Your task to perform on an android device: Open settings Image 0: 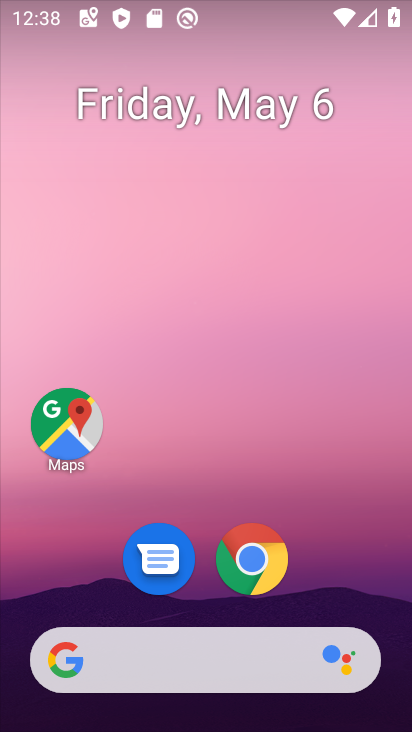
Step 0: drag from (327, 604) to (270, 92)
Your task to perform on an android device: Open settings Image 1: 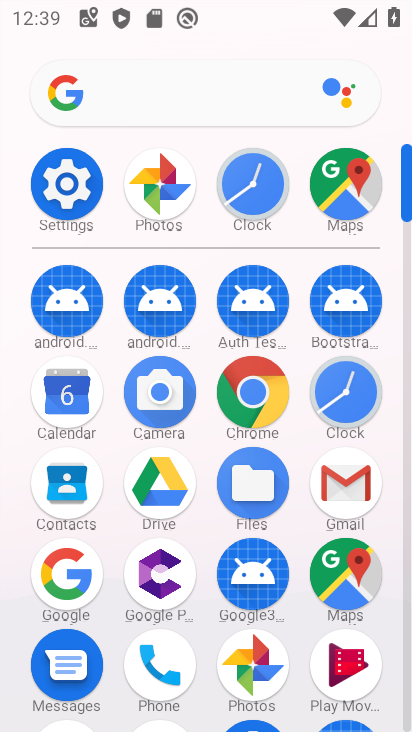
Step 1: click (63, 194)
Your task to perform on an android device: Open settings Image 2: 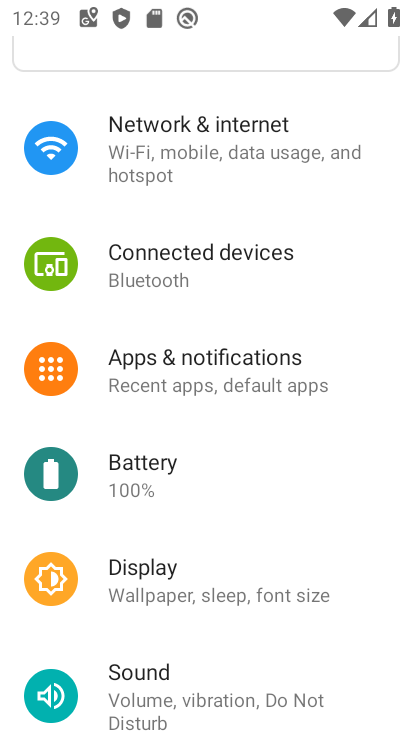
Step 2: task complete